Your task to perform on an android device: Open Chrome and go to the settings page Image 0: 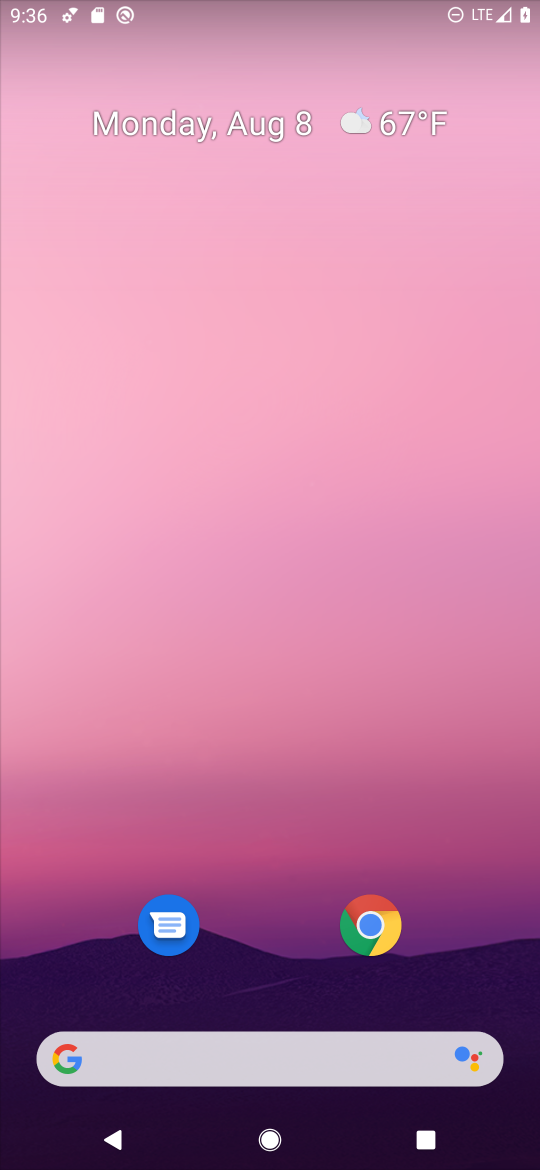
Step 0: drag from (285, 814) to (292, 267)
Your task to perform on an android device: Open Chrome and go to the settings page Image 1: 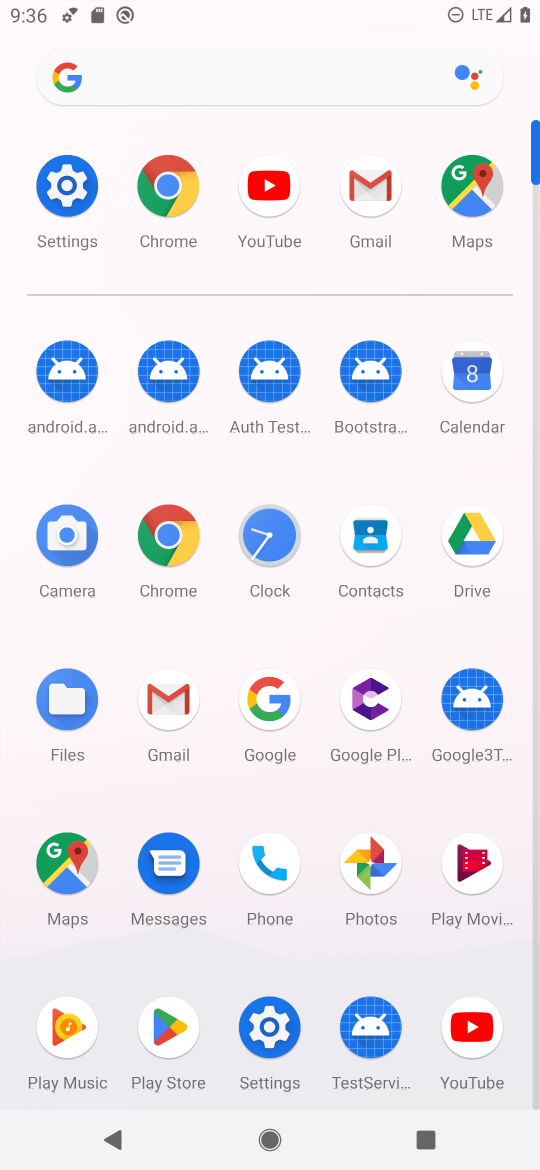
Step 1: click (170, 544)
Your task to perform on an android device: Open Chrome and go to the settings page Image 2: 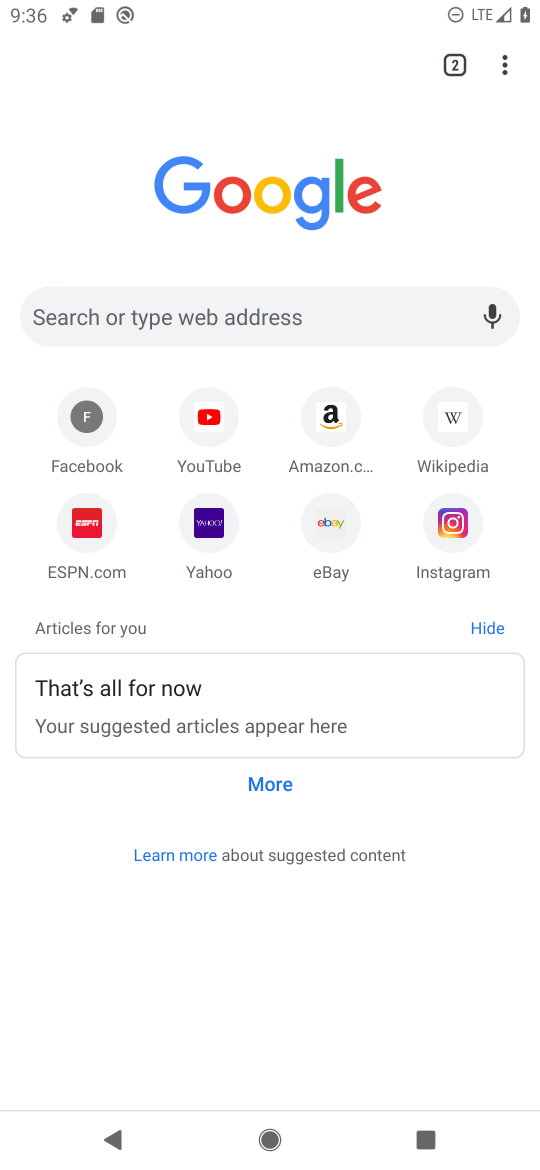
Step 2: task complete